Your task to perform on an android device: toggle improve location accuracy Image 0: 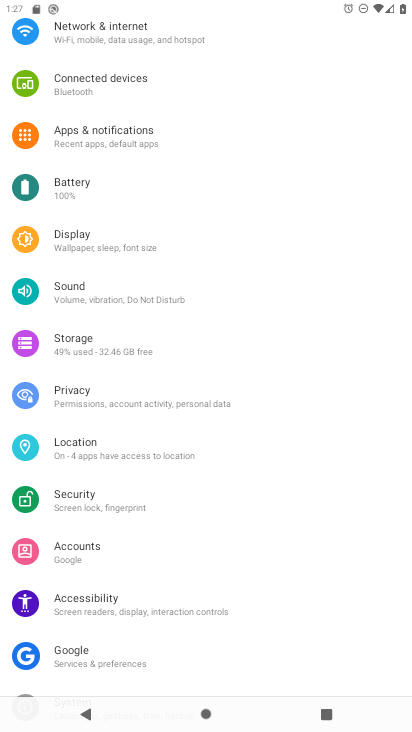
Step 0: press home button
Your task to perform on an android device: toggle improve location accuracy Image 1: 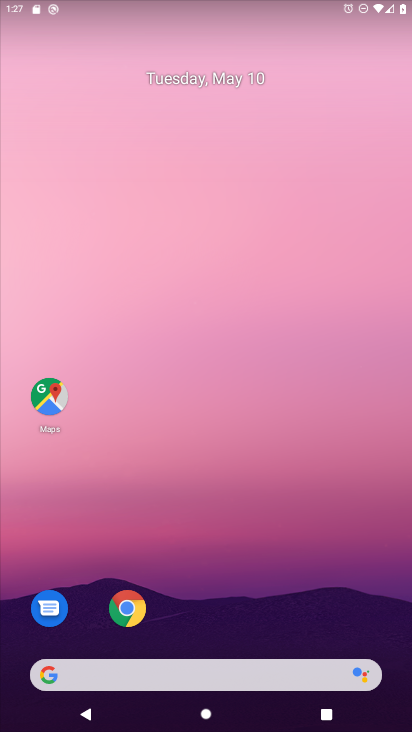
Step 1: drag from (316, 580) to (286, 248)
Your task to perform on an android device: toggle improve location accuracy Image 2: 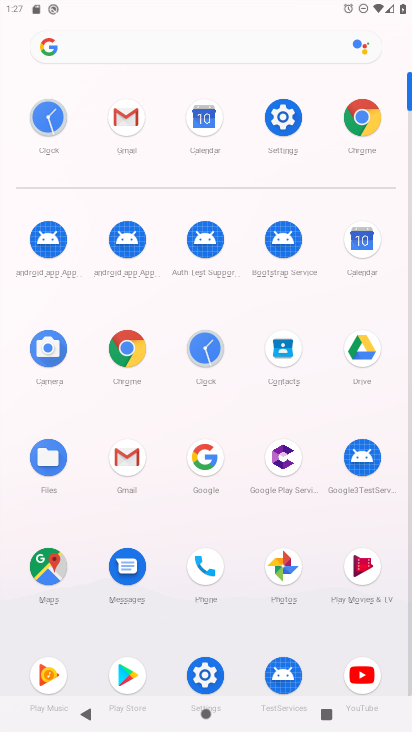
Step 2: click (287, 116)
Your task to perform on an android device: toggle improve location accuracy Image 3: 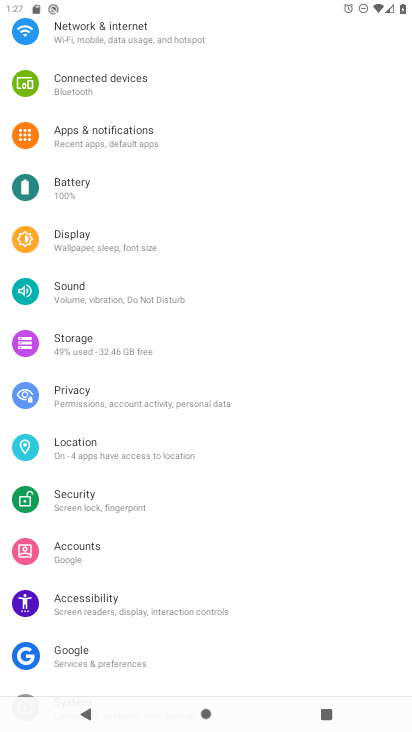
Step 3: click (110, 457)
Your task to perform on an android device: toggle improve location accuracy Image 4: 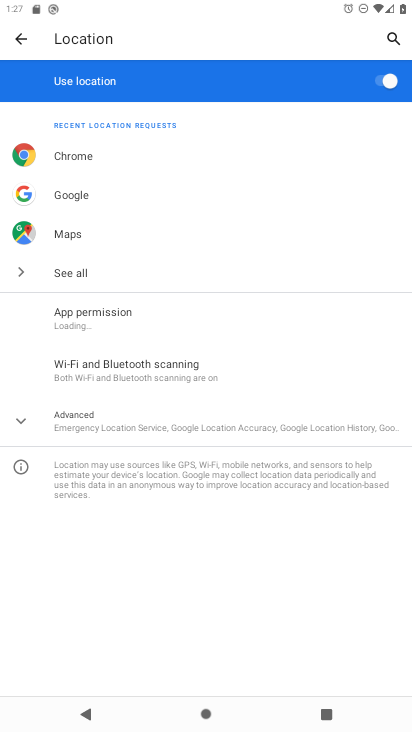
Step 4: click (65, 426)
Your task to perform on an android device: toggle improve location accuracy Image 5: 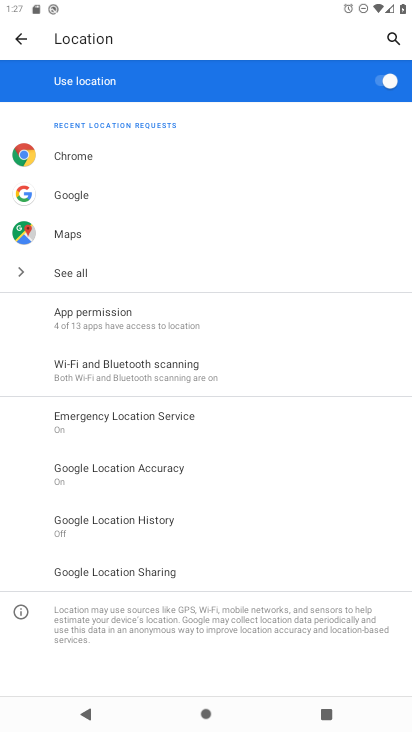
Step 5: click (78, 476)
Your task to perform on an android device: toggle improve location accuracy Image 6: 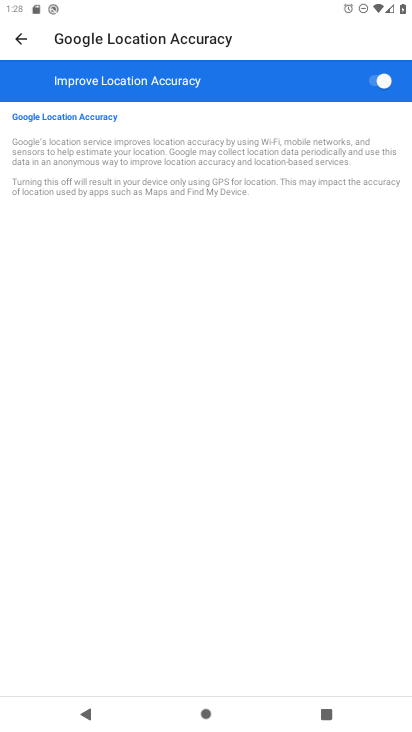
Step 6: click (375, 91)
Your task to perform on an android device: toggle improve location accuracy Image 7: 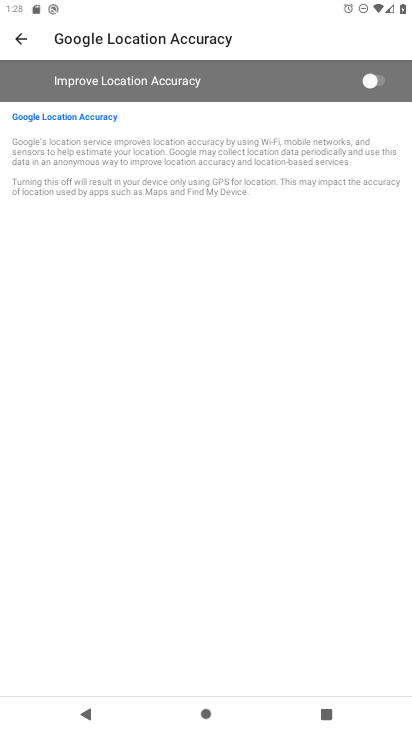
Step 7: task complete